Your task to perform on an android device: turn on wifi Image 0: 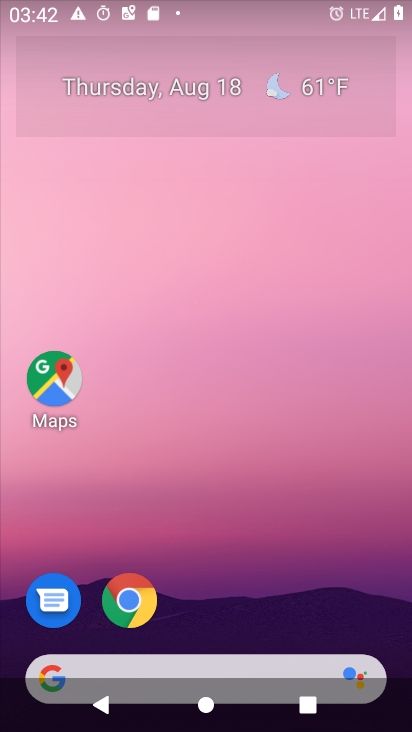
Step 0: press home button
Your task to perform on an android device: turn on wifi Image 1: 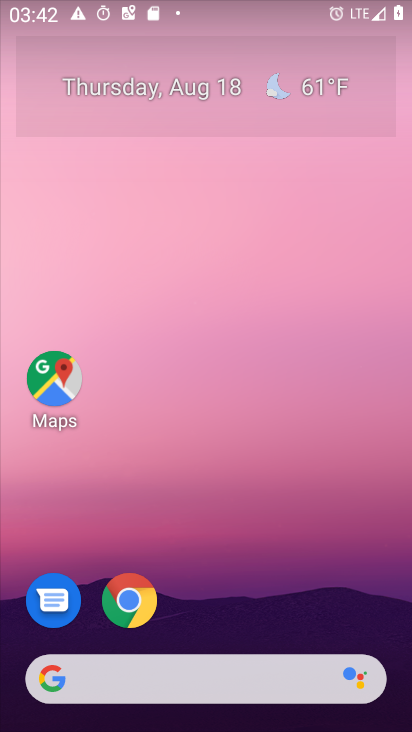
Step 1: drag from (205, 7) to (259, 622)
Your task to perform on an android device: turn on wifi Image 2: 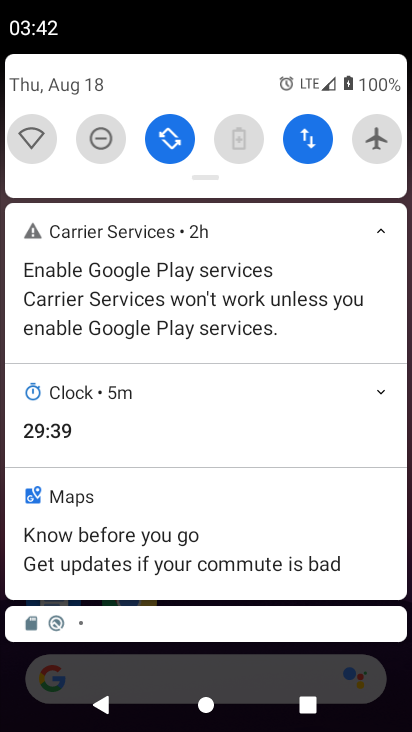
Step 2: click (31, 137)
Your task to perform on an android device: turn on wifi Image 3: 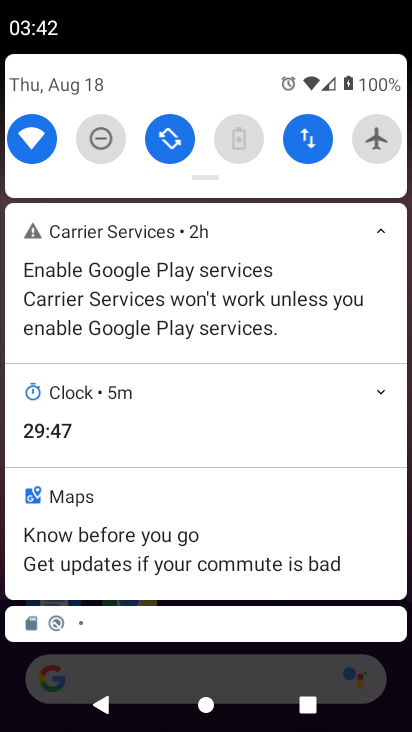
Step 3: task complete